Your task to perform on an android device: allow cookies in the chrome app Image 0: 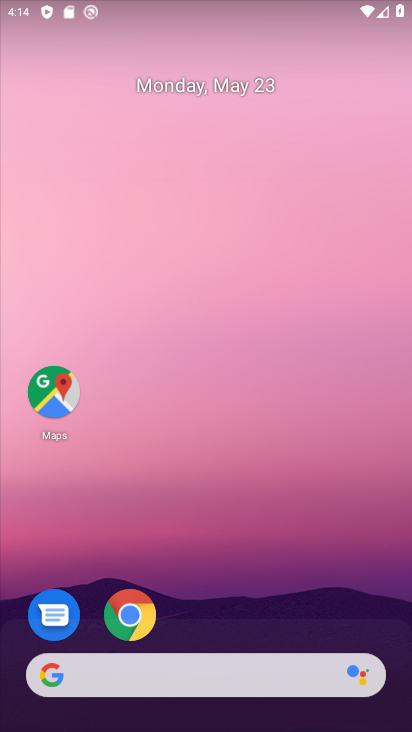
Step 0: click (128, 613)
Your task to perform on an android device: allow cookies in the chrome app Image 1: 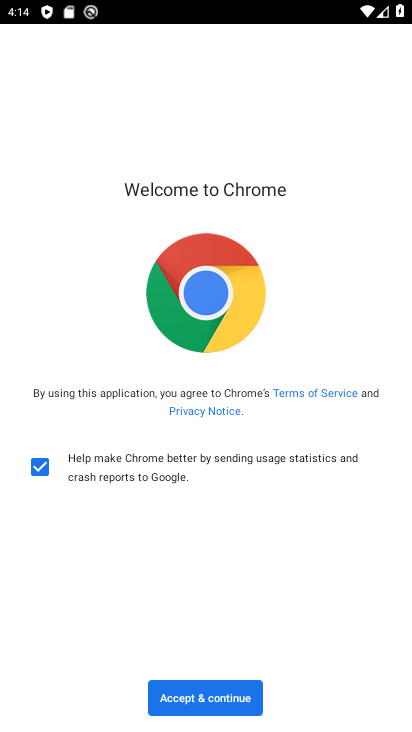
Step 1: click (182, 700)
Your task to perform on an android device: allow cookies in the chrome app Image 2: 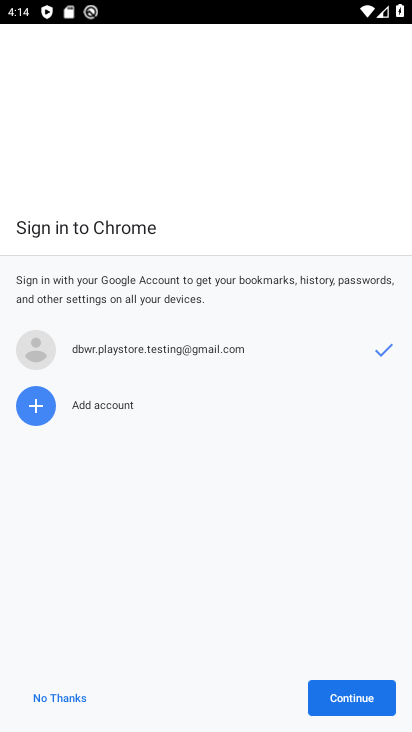
Step 2: click (363, 703)
Your task to perform on an android device: allow cookies in the chrome app Image 3: 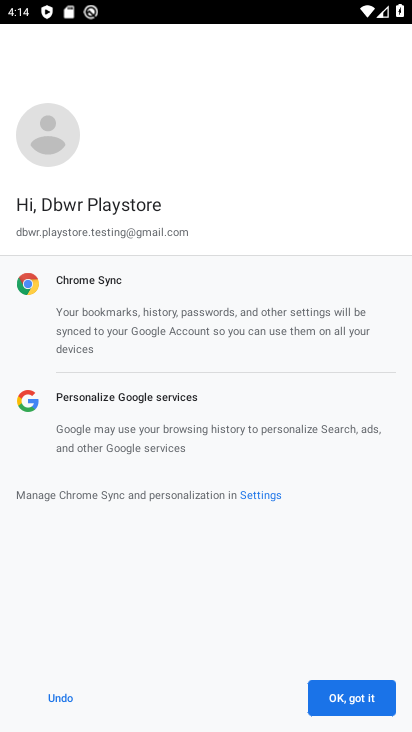
Step 3: click (354, 694)
Your task to perform on an android device: allow cookies in the chrome app Image 4: 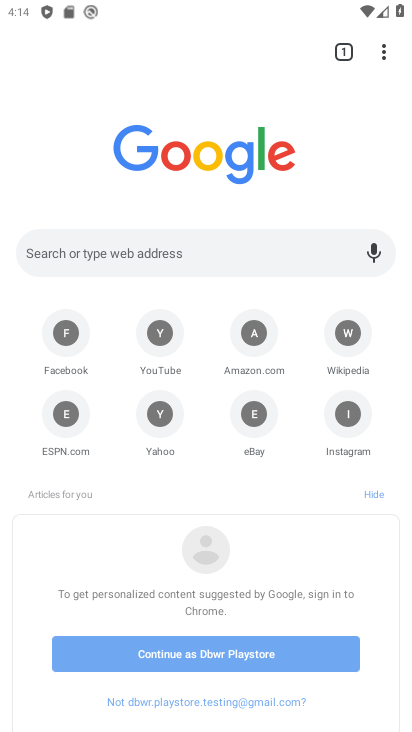
Step 4: drag from (376, 47) to (190, 435)
Your task to perform on an android device: allow cookies in the chrome app Image 5: 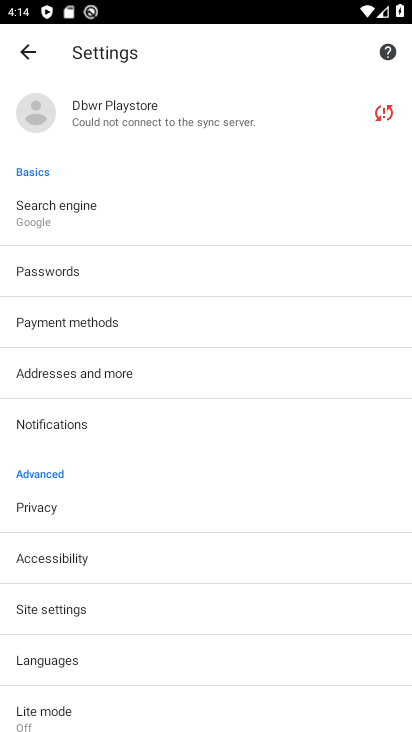
Step 5: click (49, 607)
Your task to perform on an android device: allow cookies in the chrome app Image 6: 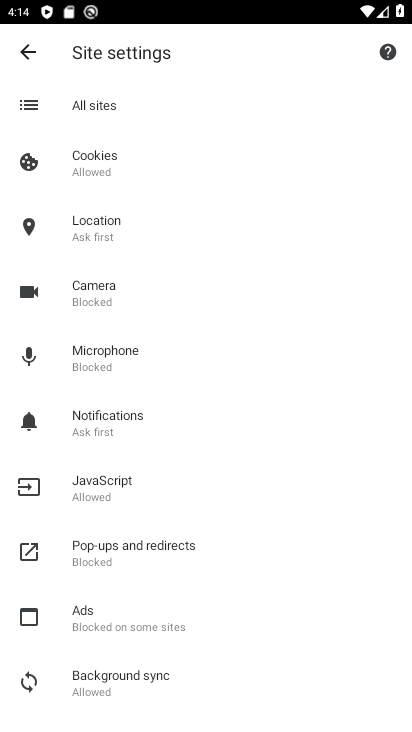
Step 6: click (128, 172)
Your task to perform on an android device: allow cookies in the chrome app Image 7: 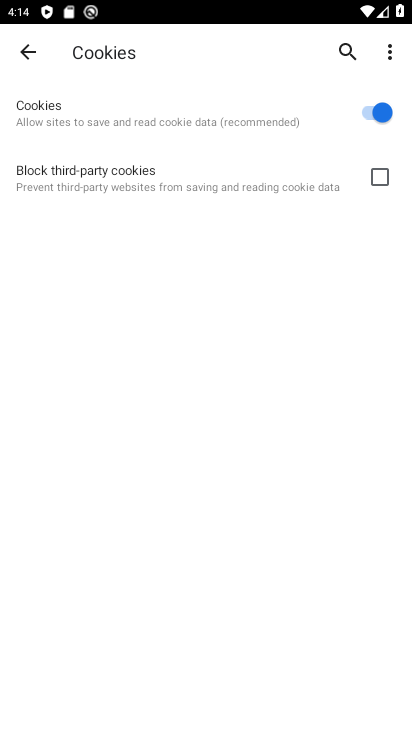
Step 7: task complete